Your task to perform on an android device: open app "Lyft - Rideshare, Bikes, Scooters & Transit" (install if not already installed) and go to login screen Image 0: 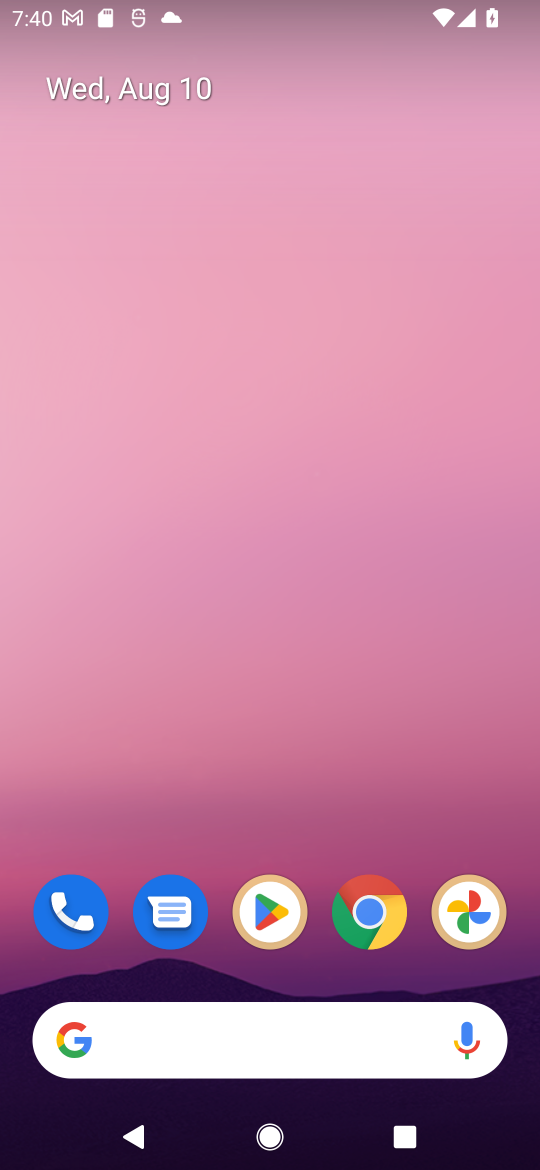
Step 0: drag from (412, 979) to (243, 54)
Your task to perform on an android device: open app "Lyft - Rideshare, Bikes, Scooters & Transit" (install if not already installed) and go to login screen Image 1: 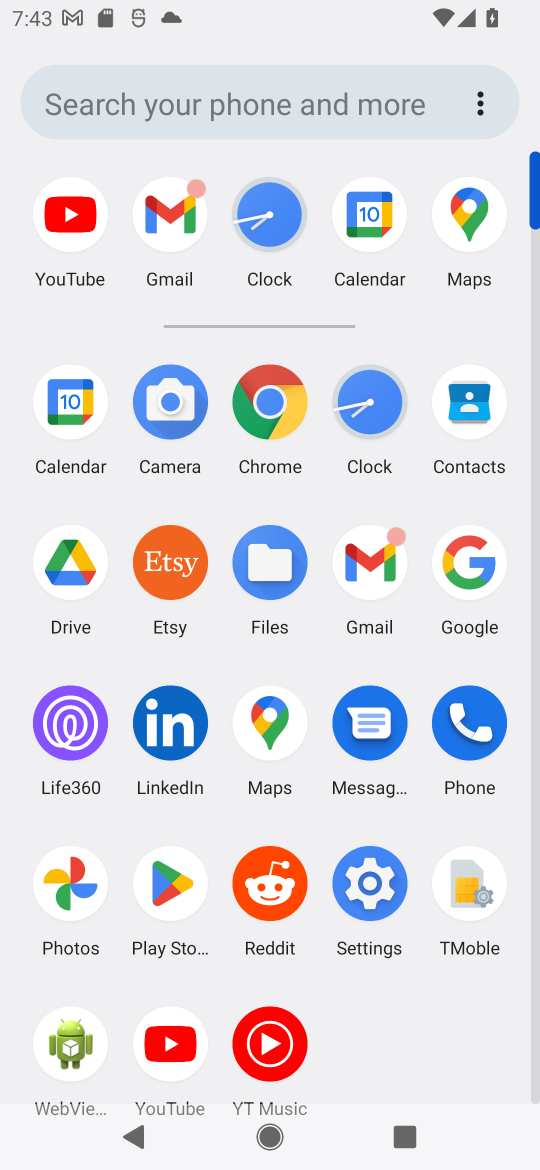
Step 1: click (161, 886)
Your task to perform on an android device: open app "Lyft - Rideshare, Bikes, Scooters & Transit" (install if not already installed) and go to login screen Image 2: 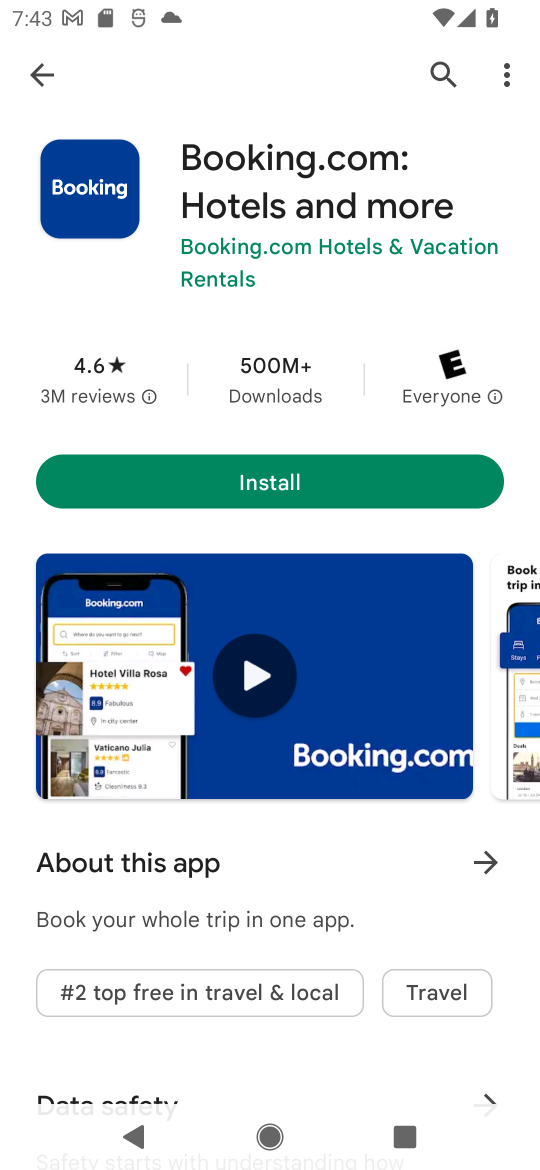
Step 2: press back button
Your task to perform on an android device: open app "Lyft - Rideshare, Bikes, Scooters & Transit" (install if not already installed) and go to login screen Image 3: 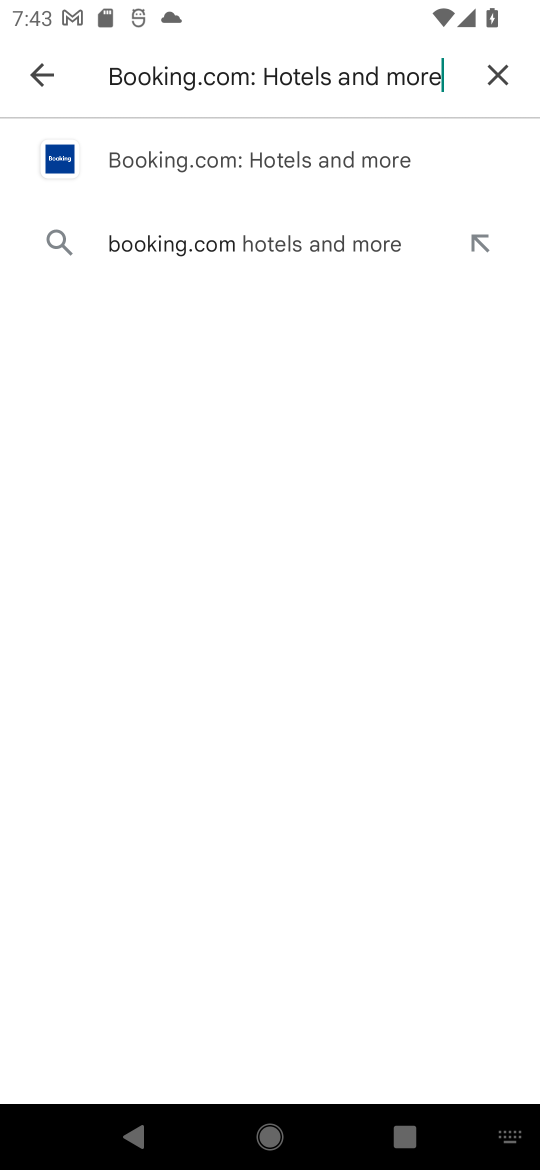
Step 3: press back button
Your task to perform on an android device: open app "Lyft - Rideshare, Bikes, Scooters & Transit" (install if not already installed) and go to login screen Image 4: 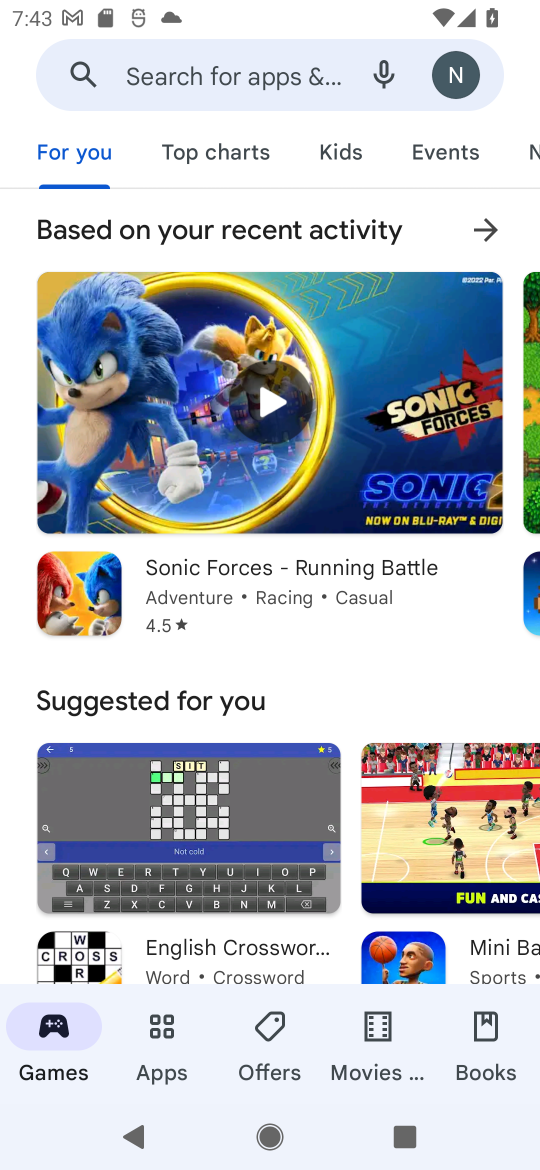
Step 4: click (184, 79)
Your task to perform on an android device: open app "Lyft - Rideshare, Bikes, Scooters & Transit" (install if not already installed) and go to login screen Image 5: 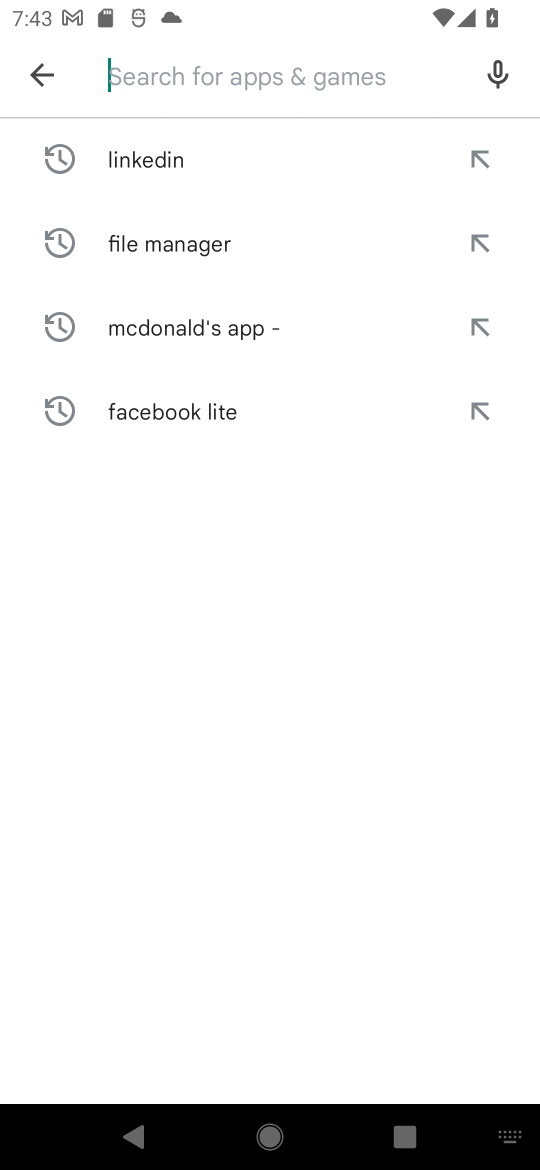
Step 5: type "Lyft - Rideshare, Bikes, Scooters & Transit"
Your task to perform on an android device: open app "Lyft - Rideshare, Bikes, Scooters & Transit" (install if not already installed) and go to login screen Image 6: 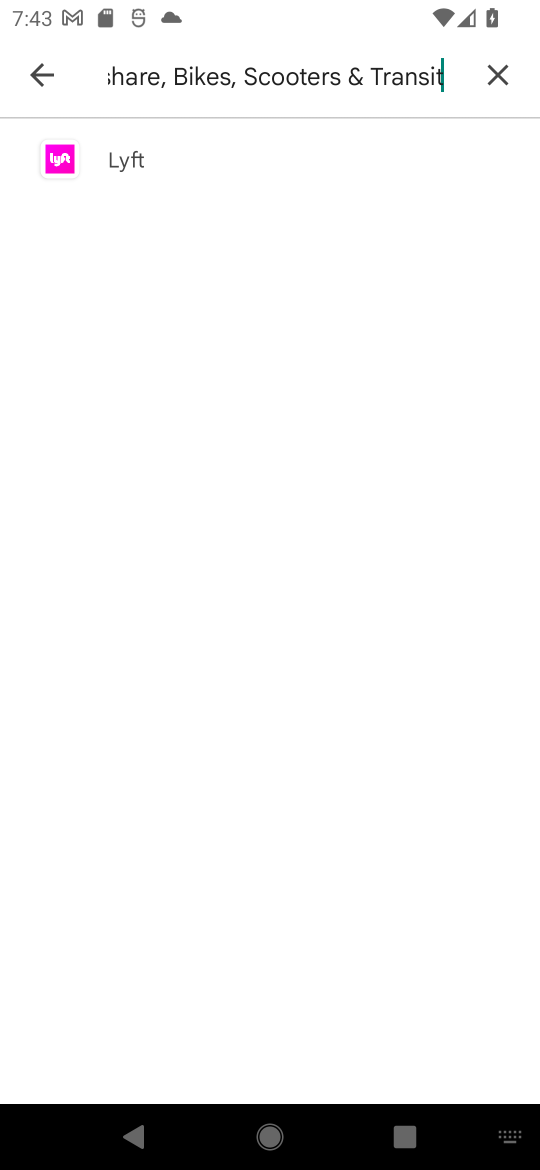
Step 6: click (173, 167)
Your task to perform on an android device: open app "Lyft - Rideshare, Bikes, Scooters & Transit" (install if not already installed) and go to login screen Image 7: 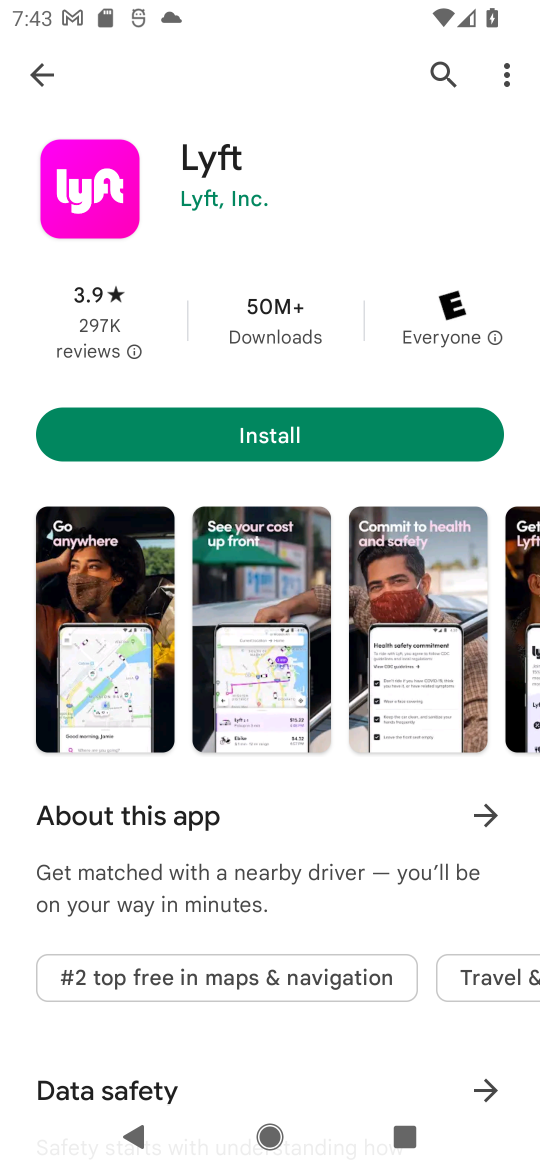
Step 7: task complete